Your task to perform on an android device: Open the web browser Image 0: 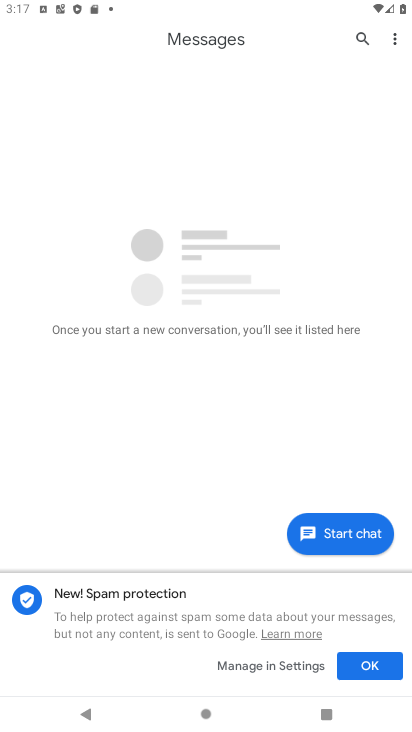
Step 0: press home button
Your task to perform on an android device: Open the web browser Image 1: 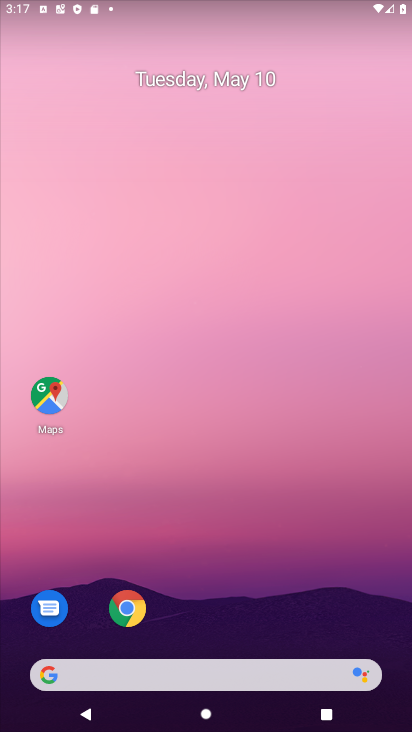
Step 1: click (121, 609)
Your task to perform on an android device: Open the web browser Image 2: 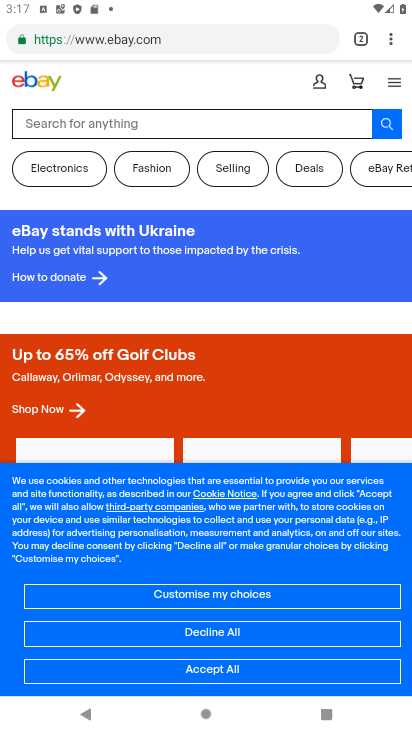
Step 2: task complete